Your task to perform on an android device: What's the weather going to be this weekend? Image 0: 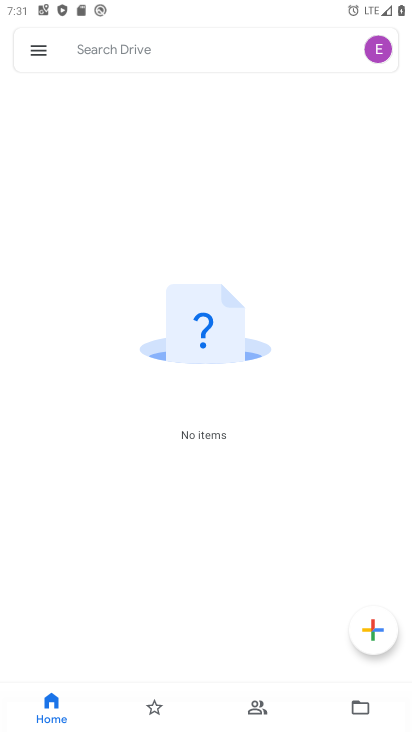
Step 0: press home button
Your task to perform on an android device: What's the weather going to be this weekend? Image 1: 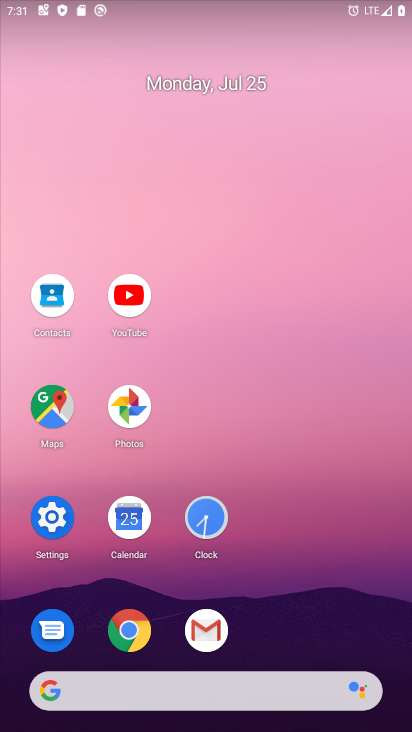
Step 1: click (164, 684)
Your task to perform on an android device: What's the weather going to be this weekend? Image 2: 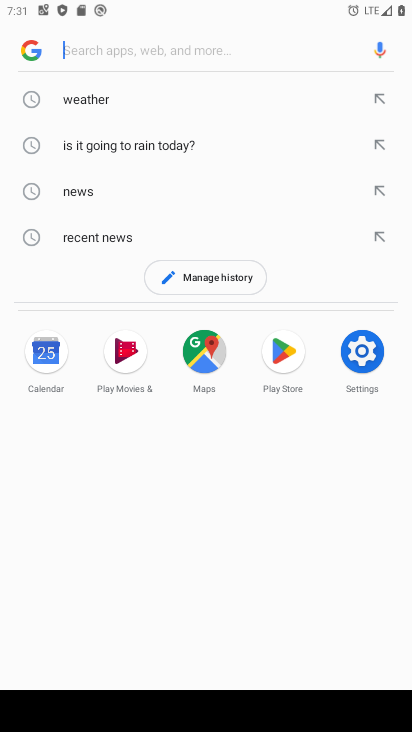
Step 2: click (78, 93)
Your task to perform on an android device: What's the weather going to be this weekend? Image 3: 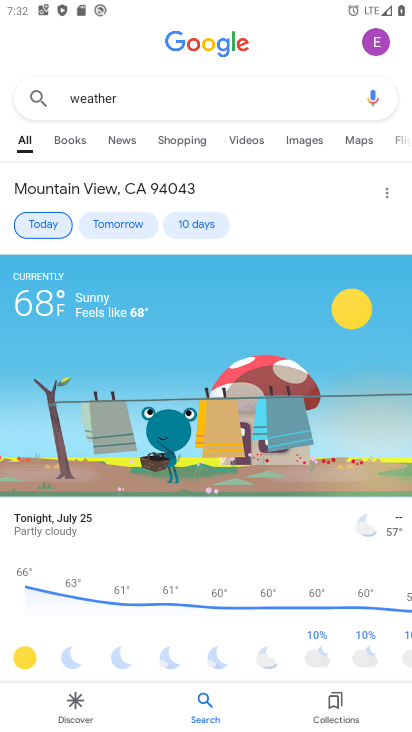
Step 3: click (181, 220)
Your task to perform on an android device: What's the weather going to be this weekend? Image 4: 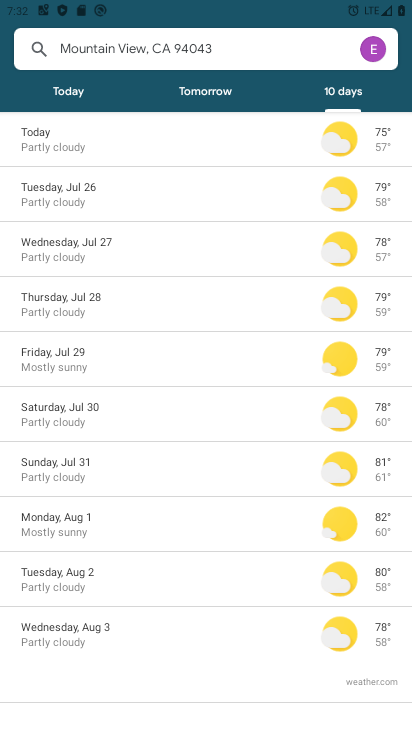
Step 4: task complete